Your task to perform on an android device: What's on my calendar tomorrow? Image 0: 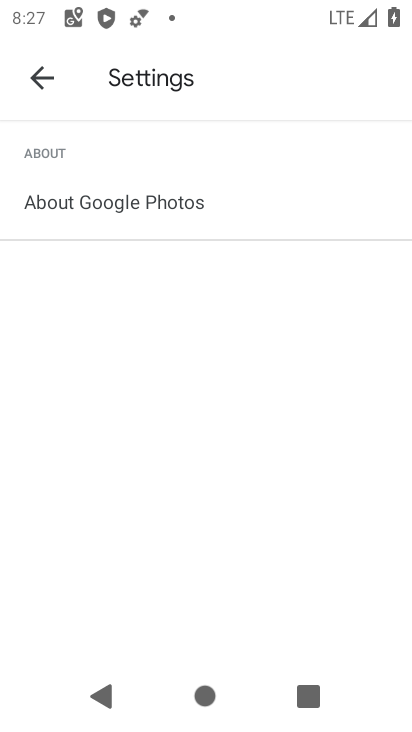
Step 0: press back button
Your task to perform on an android device: What's on my calendar tomorrow? Image 1: 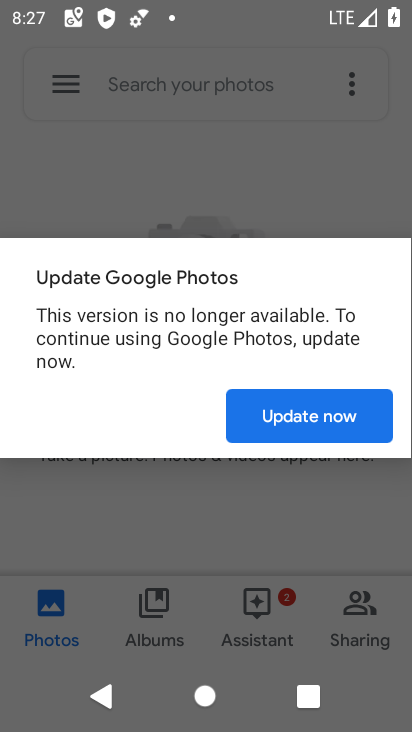
Step 1: click (332, 420)
Your task to perform on an android device: What's on my calendar tomorrow? Image 2: 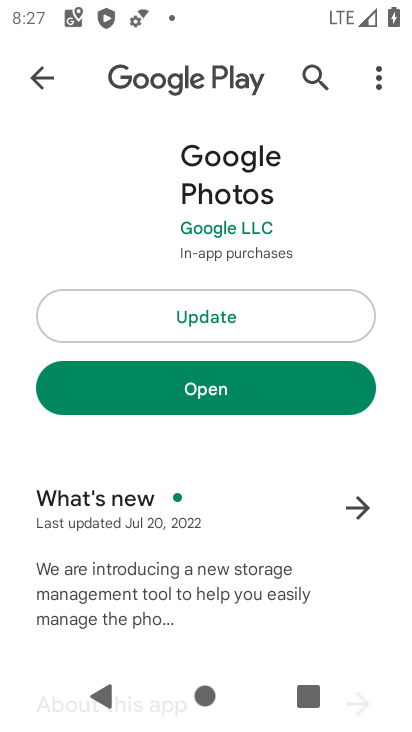
Step 2: press back button
Your task to perform on an android device: What's on my calendar tomorrow? Image 3: 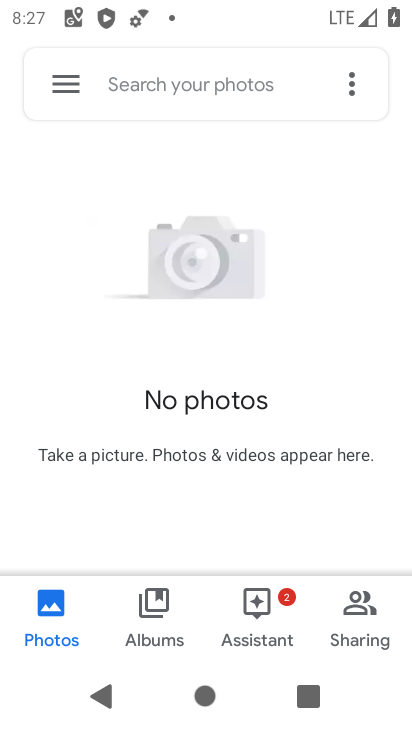
Step 3: press back button
Your task to perform on an android device: What's on my calendar tomorrow? Image 4: 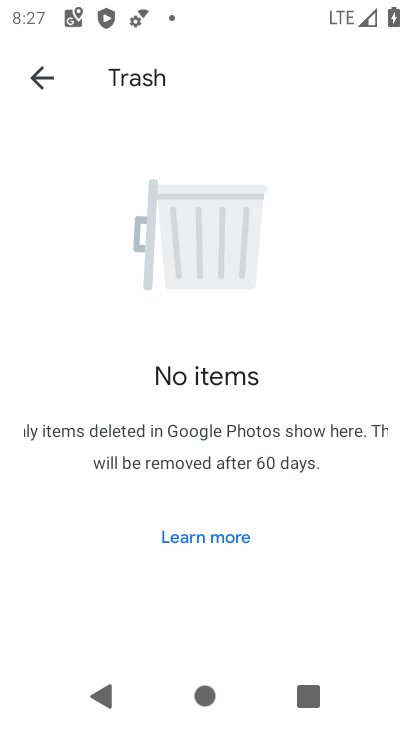
Step 4: press back button
Your task to perform on an android device: What's on my calendar tomorrow? Image 5: 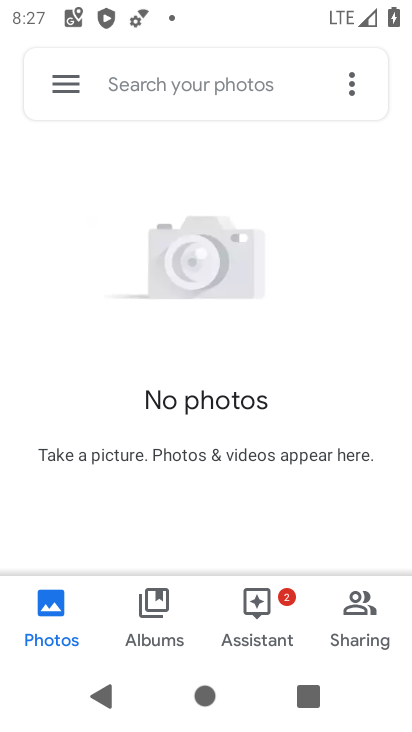
Step 5: press back button
Your task to perform on an android device: What's on my calendar tomorrow? Image 6: 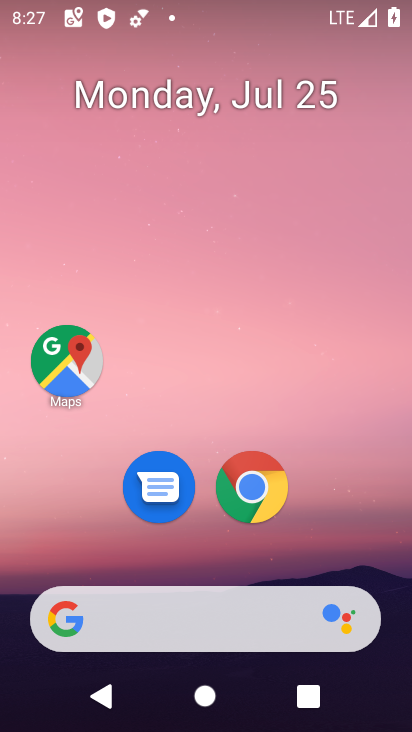
Step 6: drag from (82, 543) to (224, 41)
Your task to perform on an android device: What's on my calendar tomorrow? Image 7: 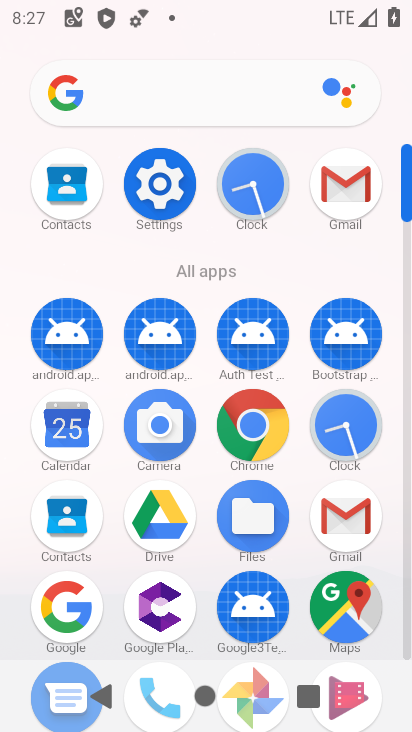
Step 7: click (66, 425)
Your task to perform on an android device: What's on my calendar tomorrow? Image 8: 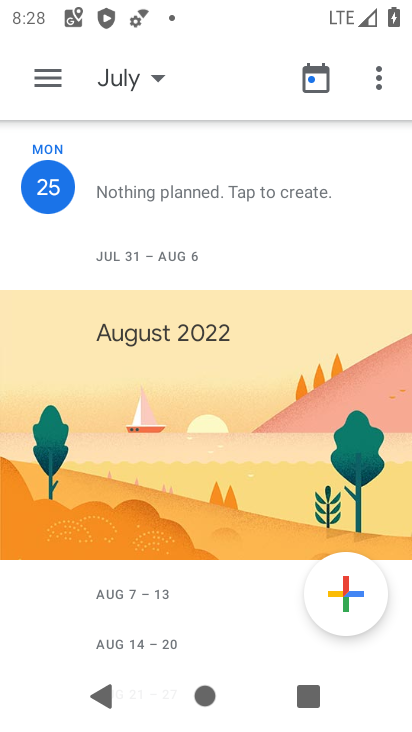
Step 8: click (137, 75)
Your task to perform on an android device: What's on my calendar tomorrow? Image 9: 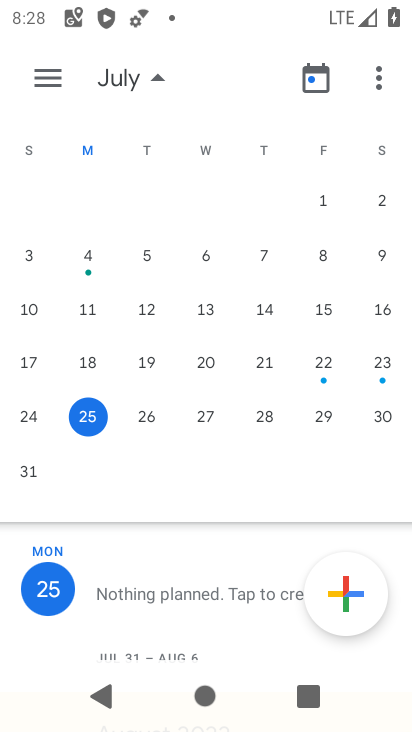
Step 9: click (131, 406)
Your task to perform on an android device: What's on my calendar tomorrow? Image 10: 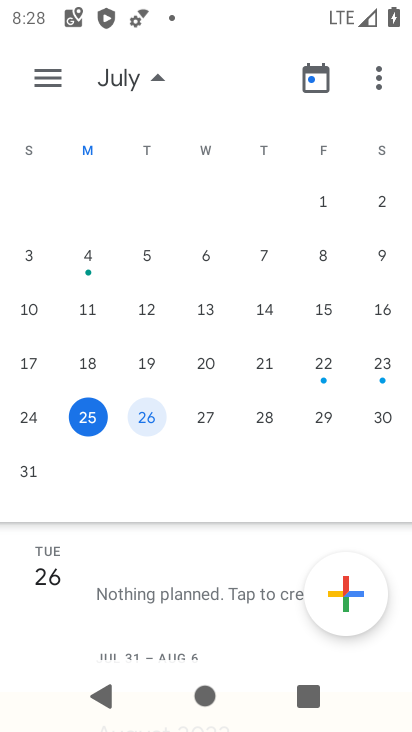
Step 10: task complete